Your task to perform on an android device: Add amazon basics triple a to the cart on walmart, then select checkout. Image 0: 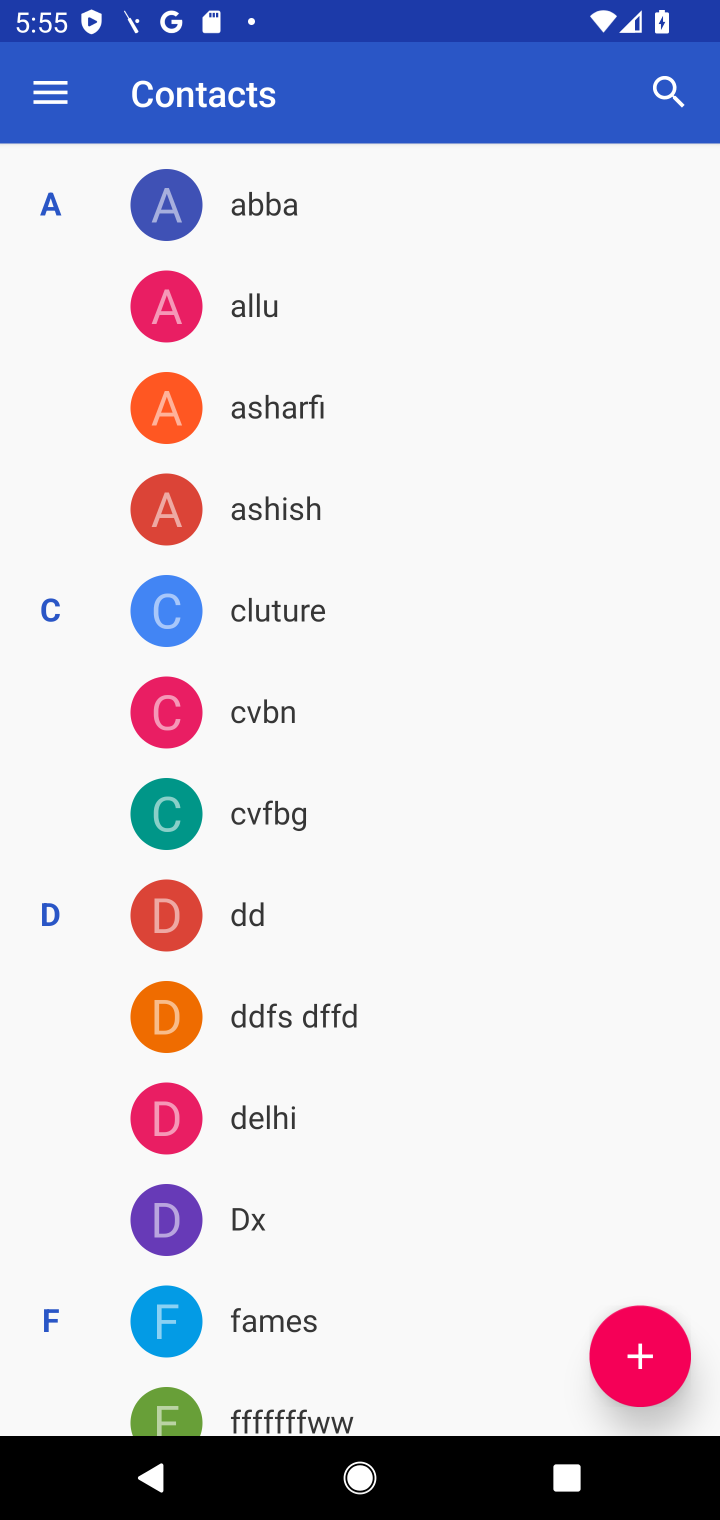
Step 0: press home button
Your task to perform on an android device: Add amazon basics triple a to the cart on walmart, then select checkout. Image 1: 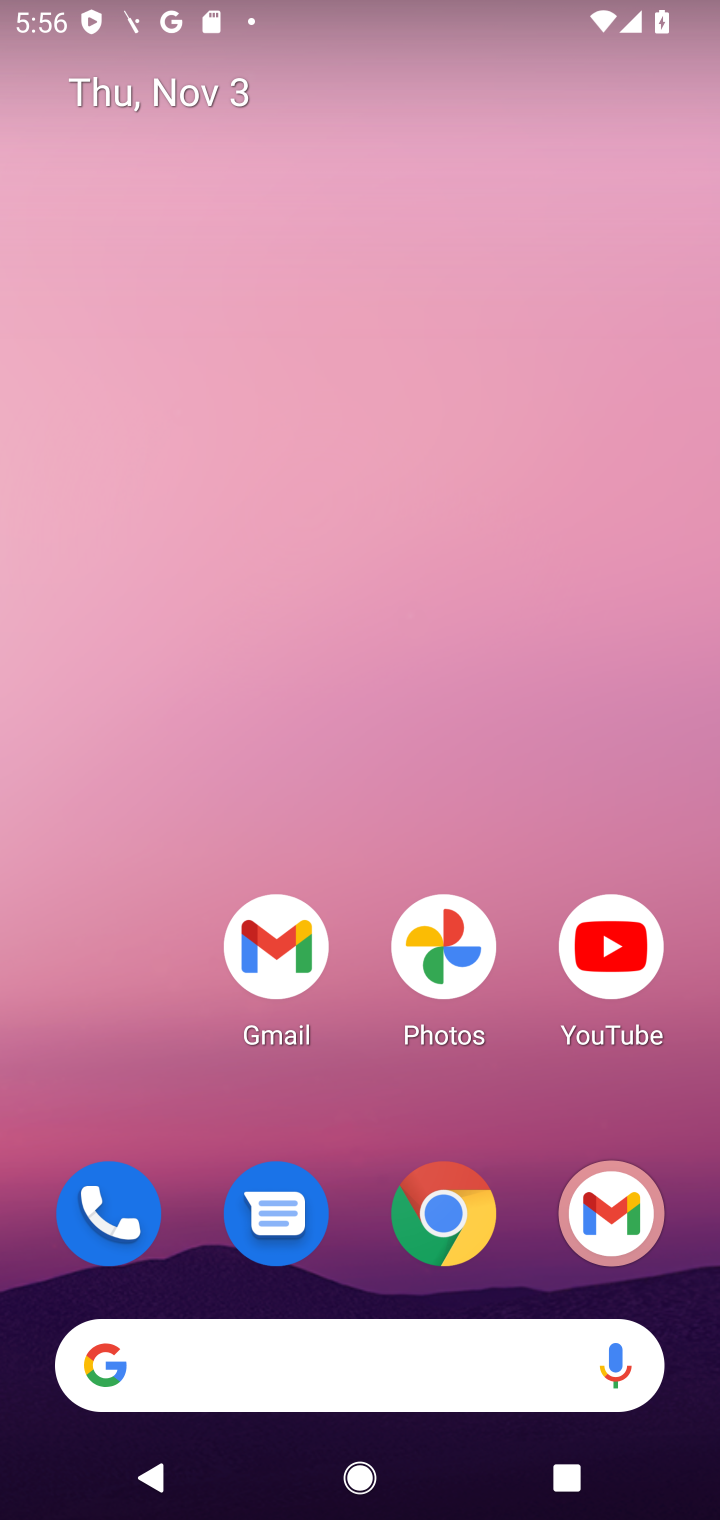
Step 1: click (444, 1236)
Your task to perform on an android device: Add amazon basics triple a to the cart on walmart, then select checkout. Image 2: 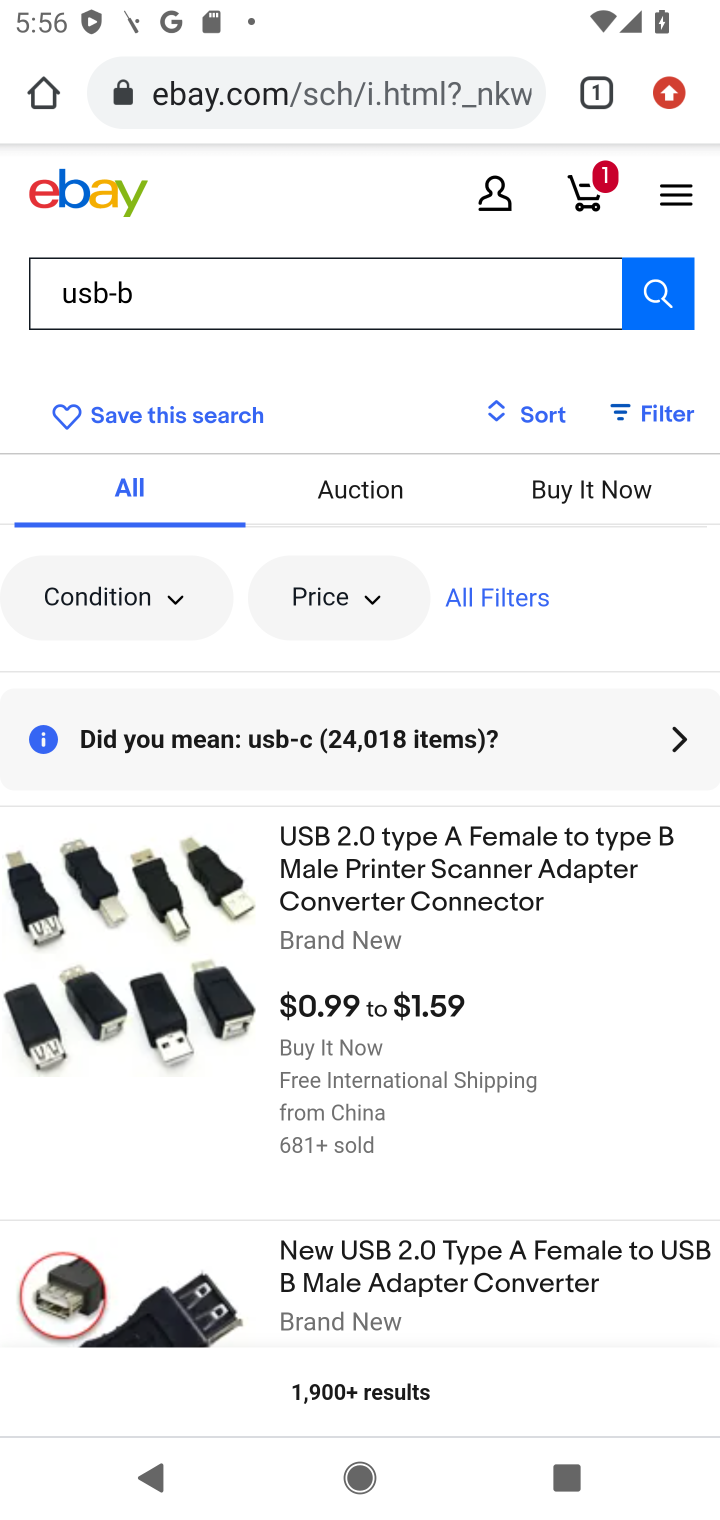
Step 2: click (294, 94)
Your task to perform on an android device: Add amazon basics triple a to the cart on walmart, then select checkout. Image 3: 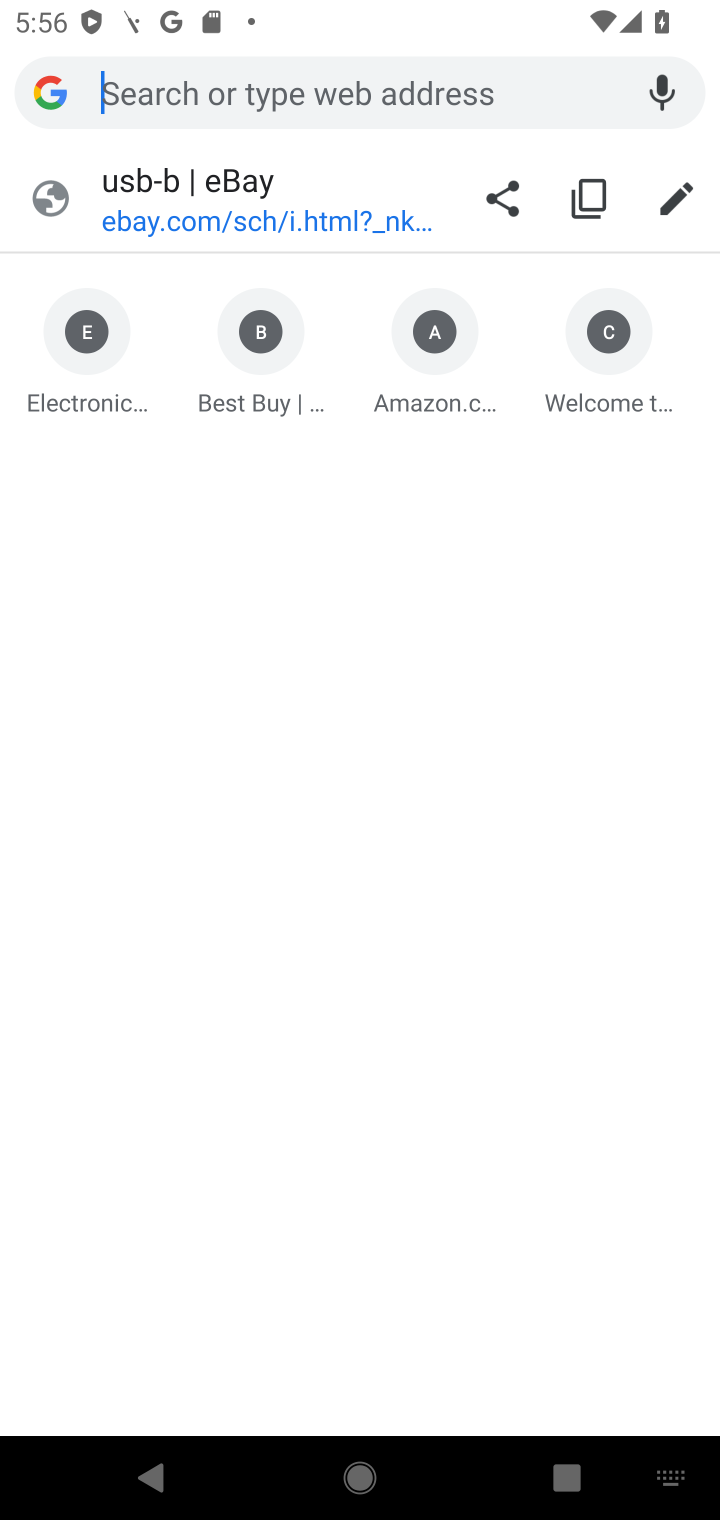
Step 3: type "walmart.com"
Your task to perform on an android device: Add amazon basics triple a to the cart on walmart, then select checkout. Image 4: 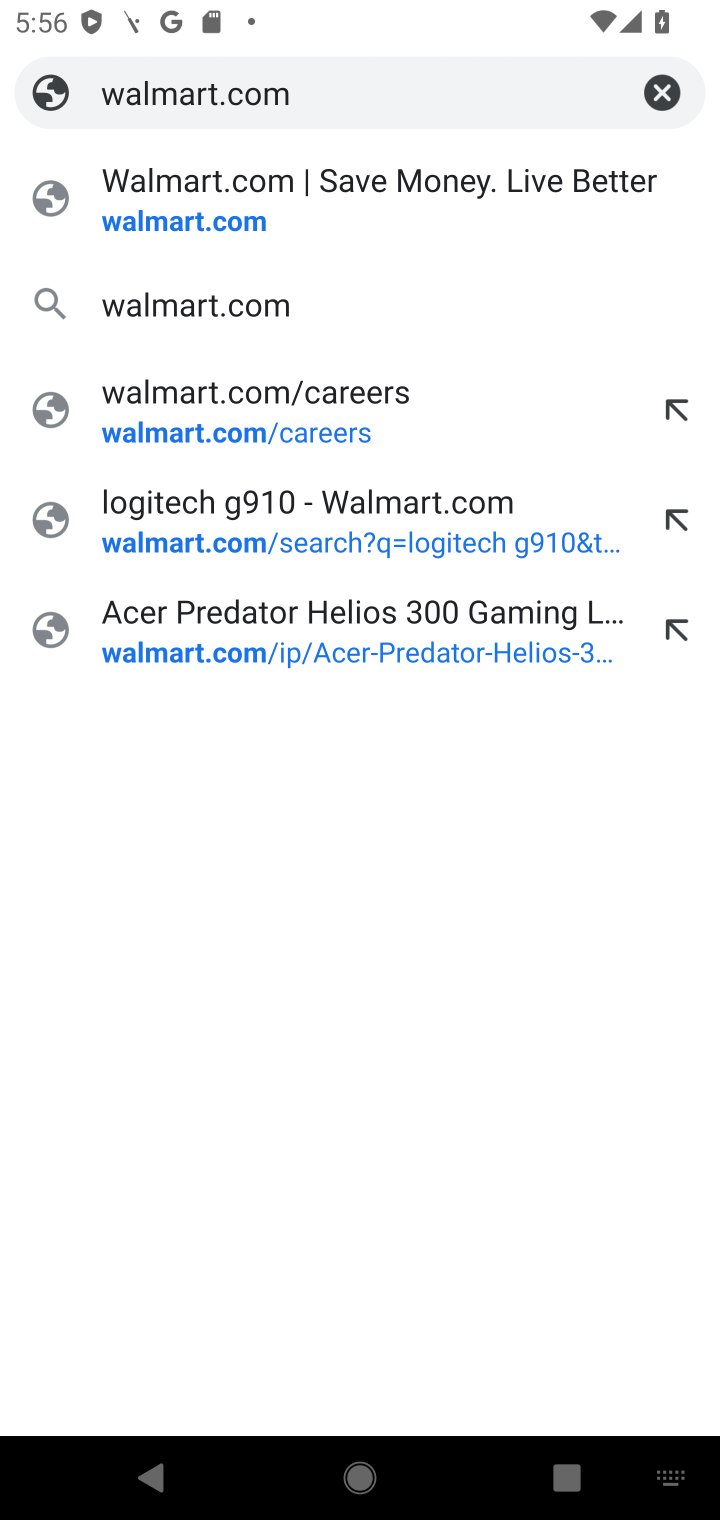
Step 4: click (203, 234)
Your task to perform on an android device: Add amazon basics triple a to the cart on walmart, then select checkout. Image 5: 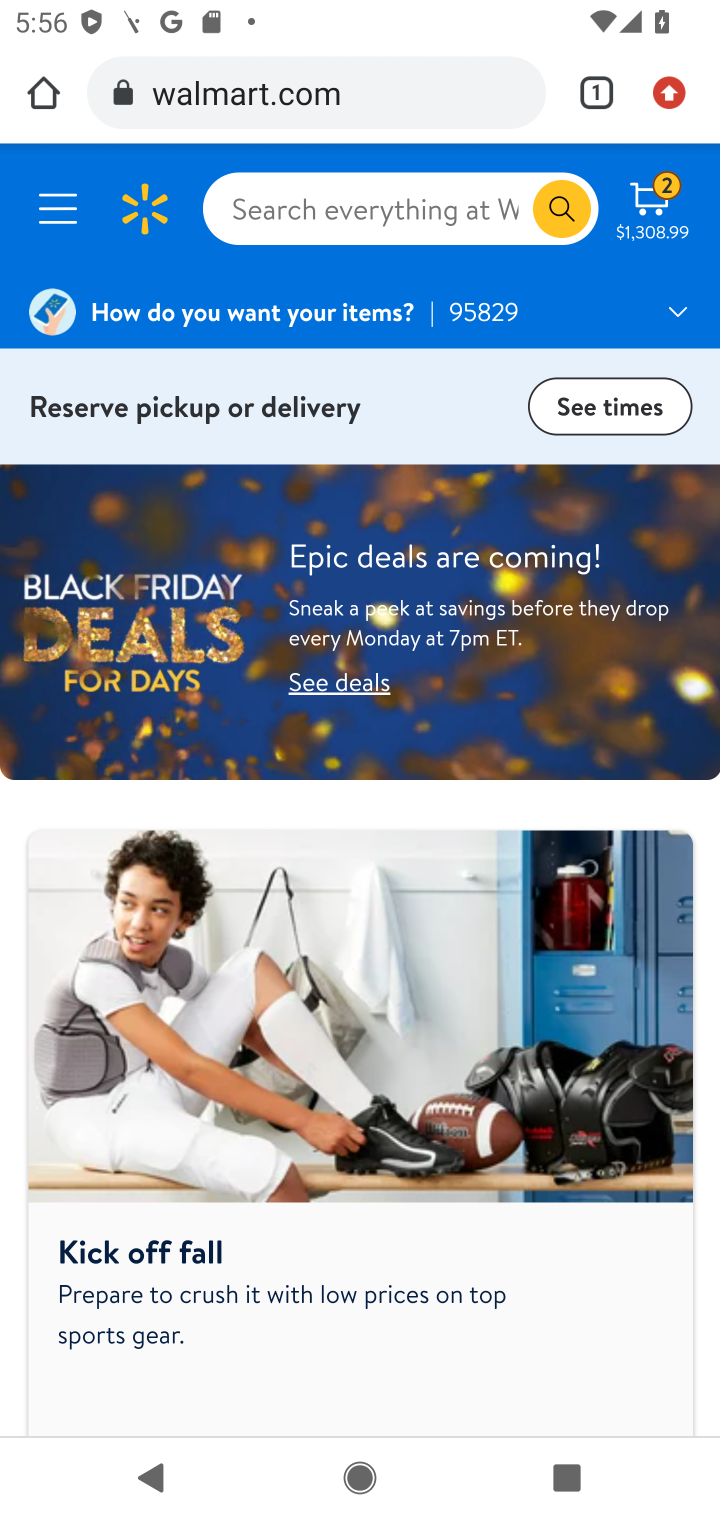
Step 5: click (332, 202)
Your task to perform on an android device: Add amazon basics triple a to the cart on walmart, then select checkout. Image 6: 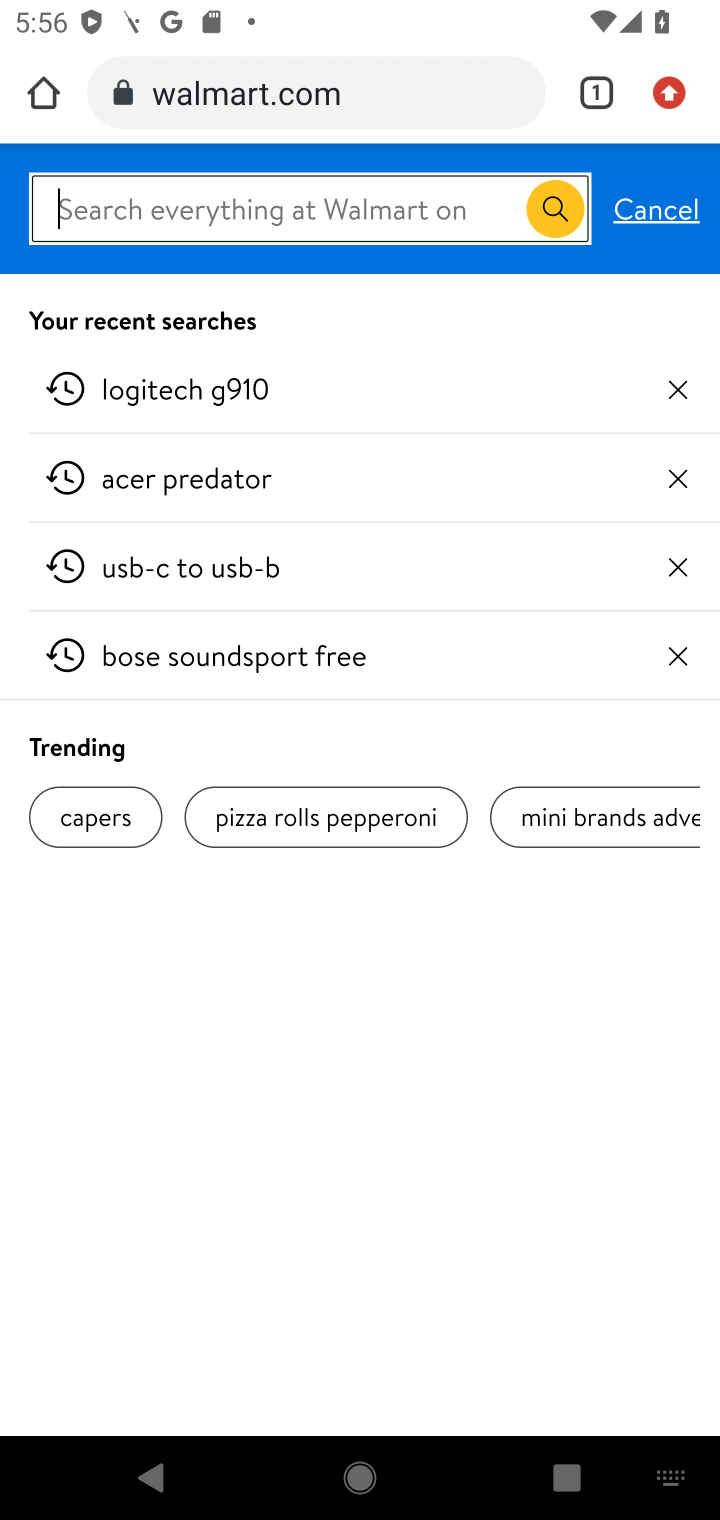
Step 6: type " amazon basics triple a"
Your task to perform on an android device: Add amazon basics triple a to the cart on walmart, then select checkout. Image 7: 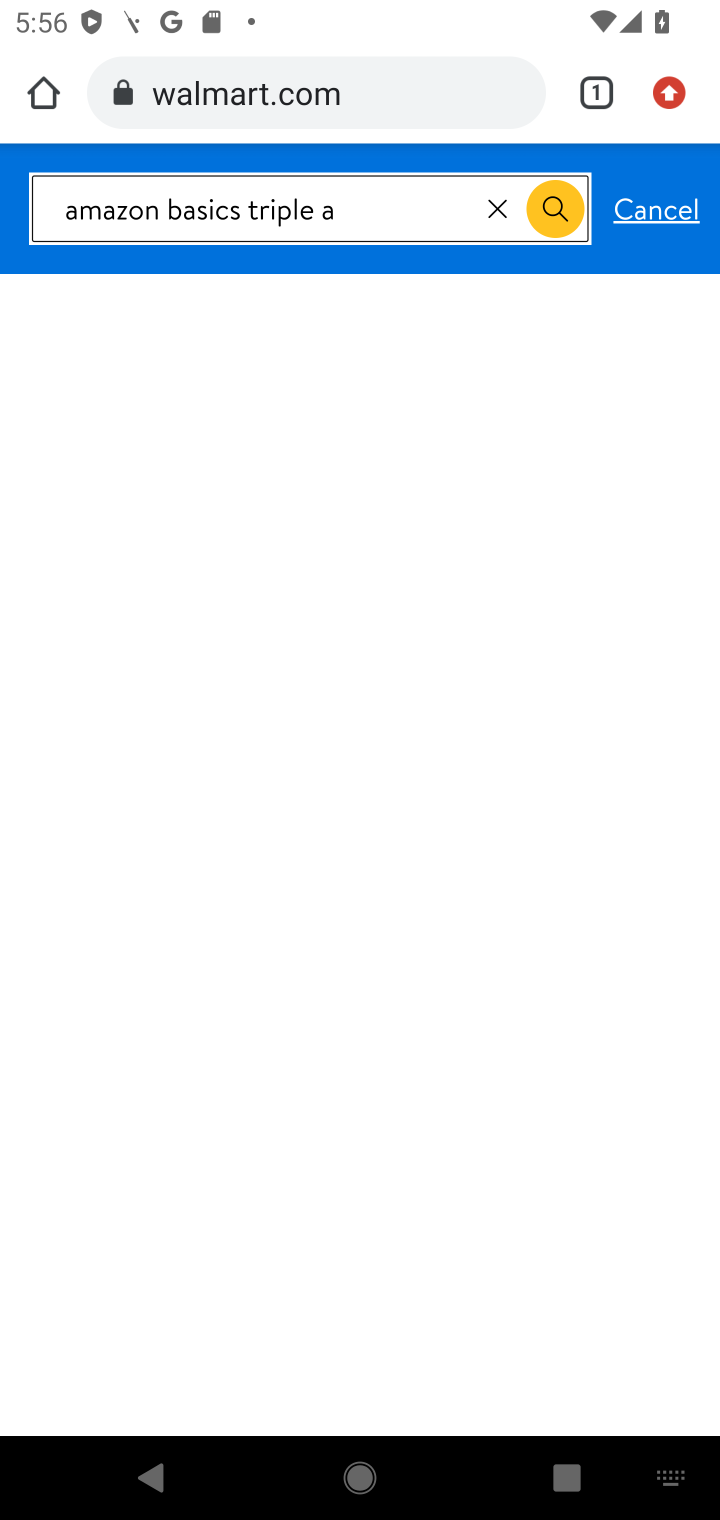
Step 7: click (545, 218)
Your task to perform on an android device: Add amazon basics triple a to the cart on walmart, then select checkout. Image 8: 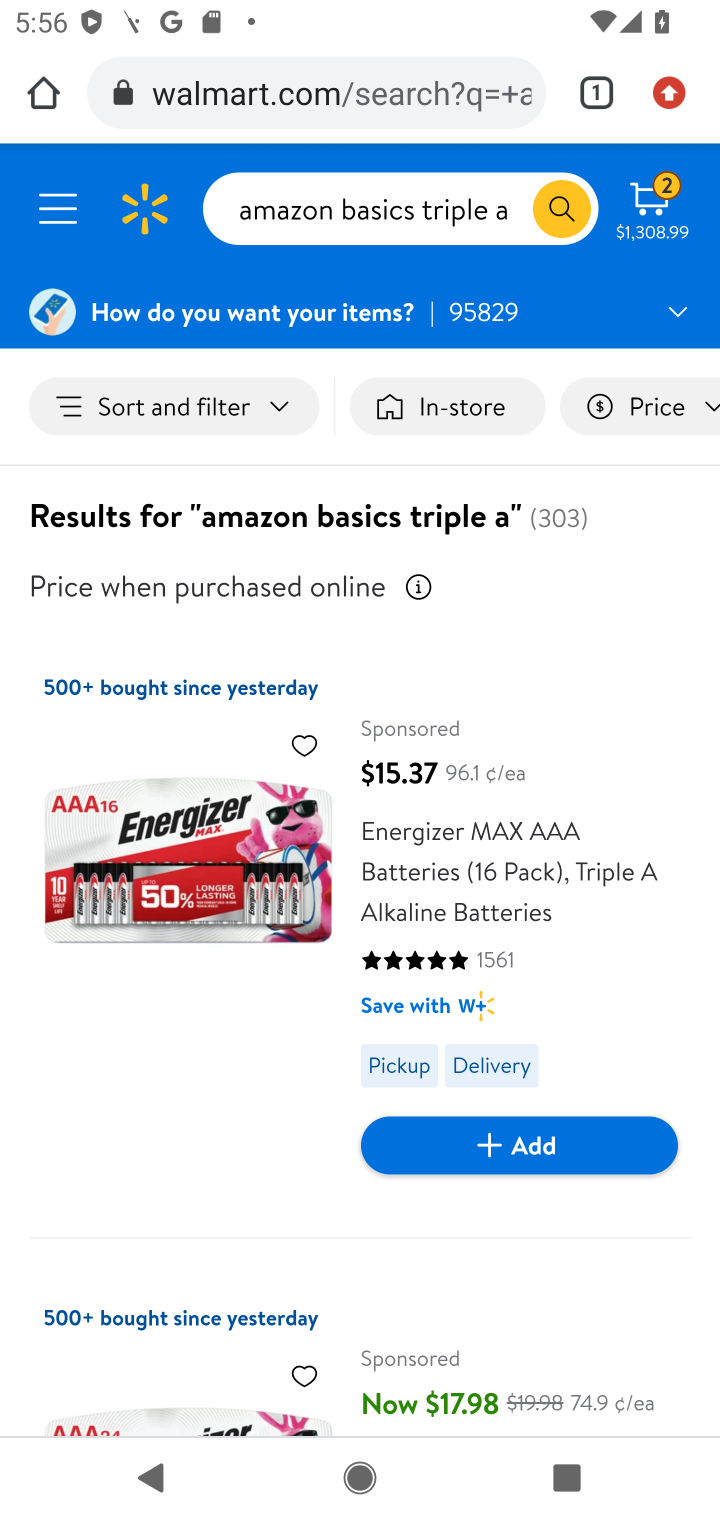
Step 8: task complete